Your task to perform on an android device: turn off location history Image 0: 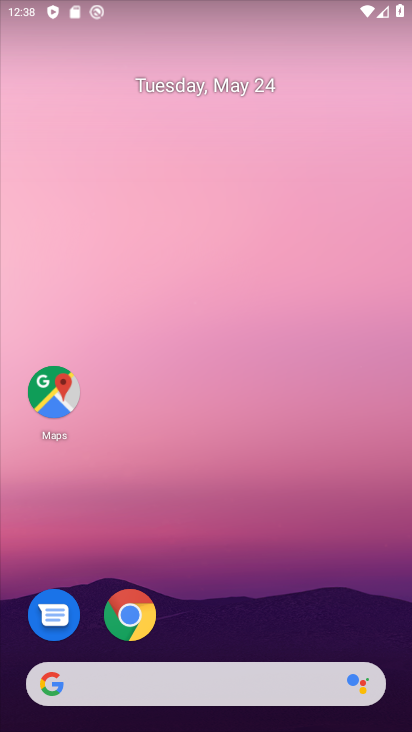
Step 0: press home button
Your task to perform on an android device: turn off location history Image 1: 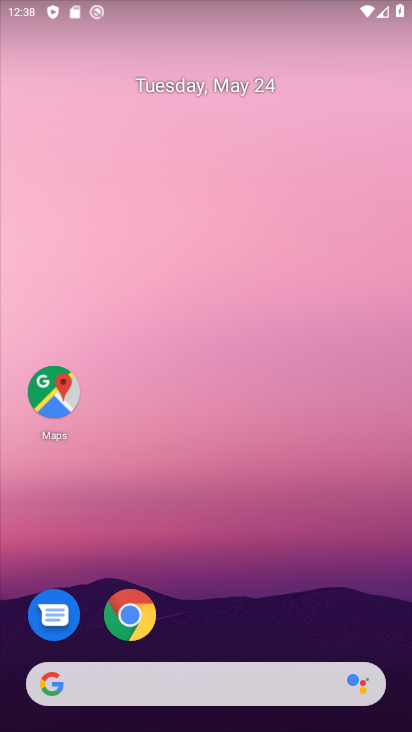
Step 1: drag from (222, 636) to (229, 344)
Your task to perform on an android device: turn off location history Image 2: 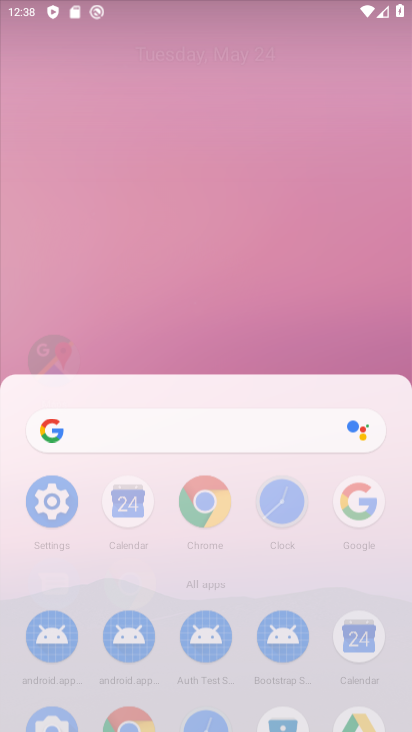
Step 2: click (244, 118)
Your task to perform on an android device: turn off location history Image 3: 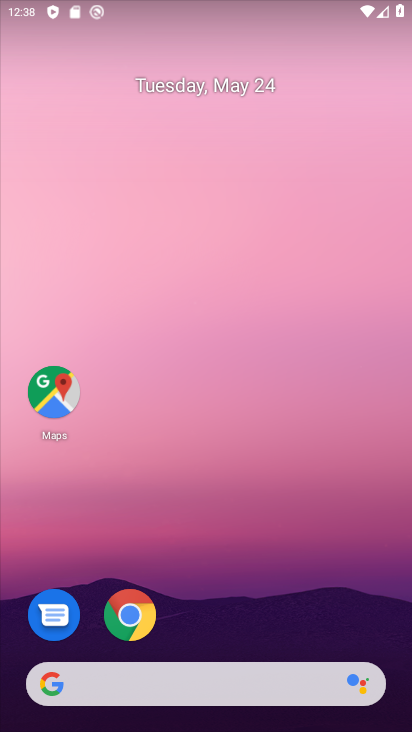
Step 3: drag from (215, 628) to (248, 129)
Your task to perform on an android device: turn off location history Image 4: 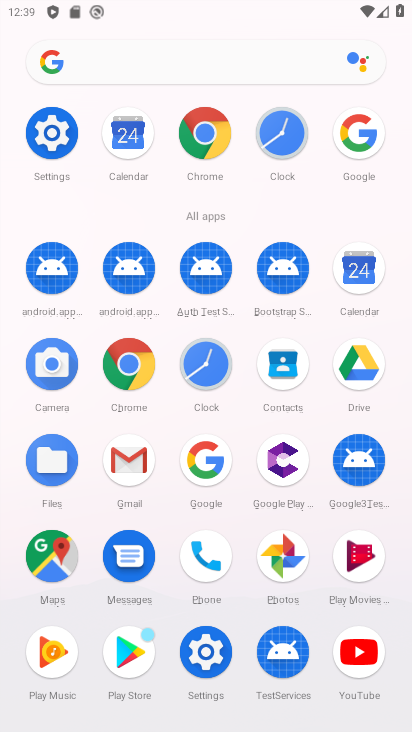
Step 4: click (53, 133)
Your task to perform on an android device: turn off location history Image 5: 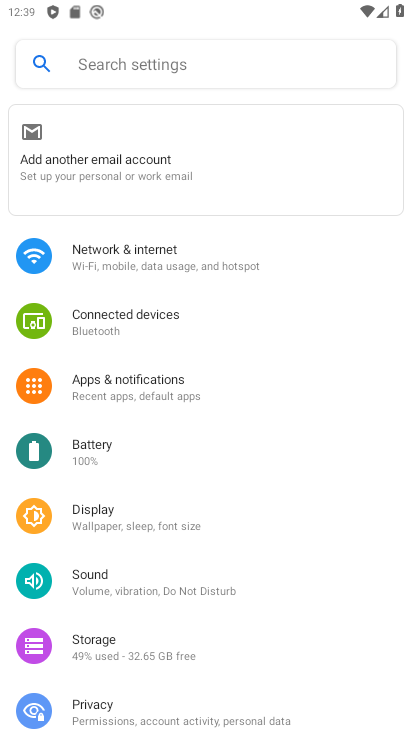
Step 5: drag from (158, 689) to (187, 272)
Your task to perform on an android device: turn off location history Image 6: 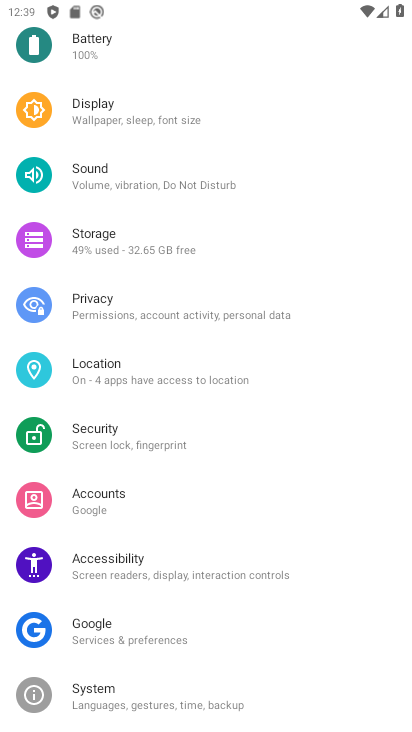
Step 6: click (130, 362)
Your task to perform on an android device: turn off location history Image 7: 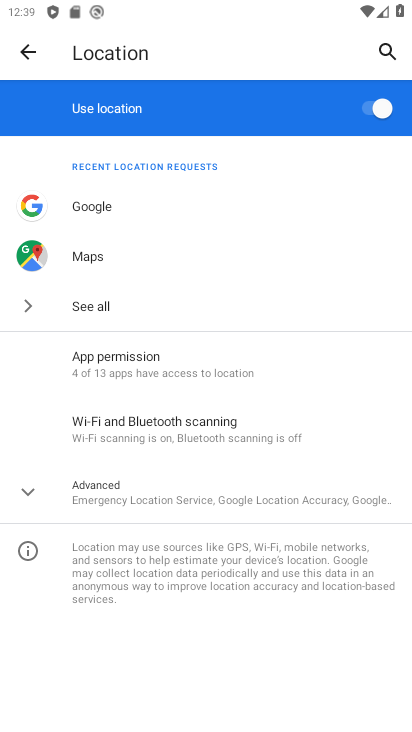
Step 7: click (23, 486)
Your task to perform on an android device: turn off location history Image 8: 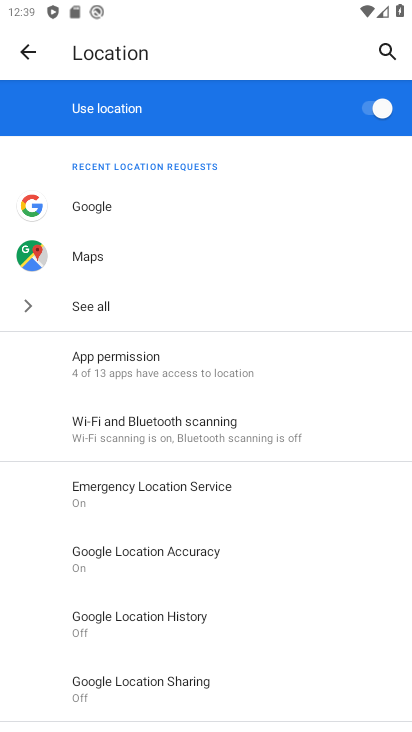
Step 8: click (128, 624)
Your task to perform on an android device: turn off location history Image 9: 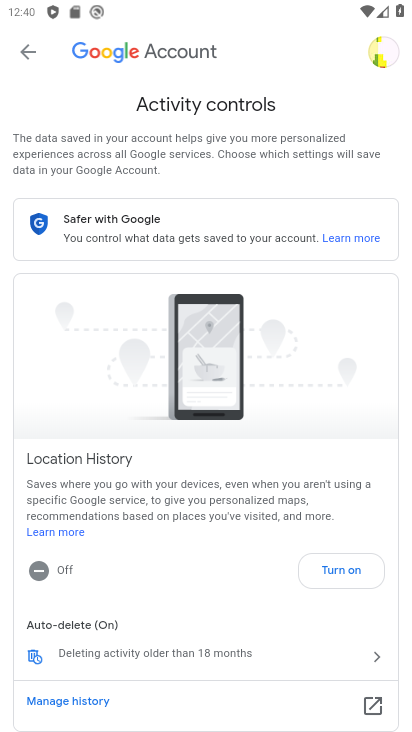
Step 9: task complete